Your task to perform on an android device: change your default location settings in chrome Image 0: 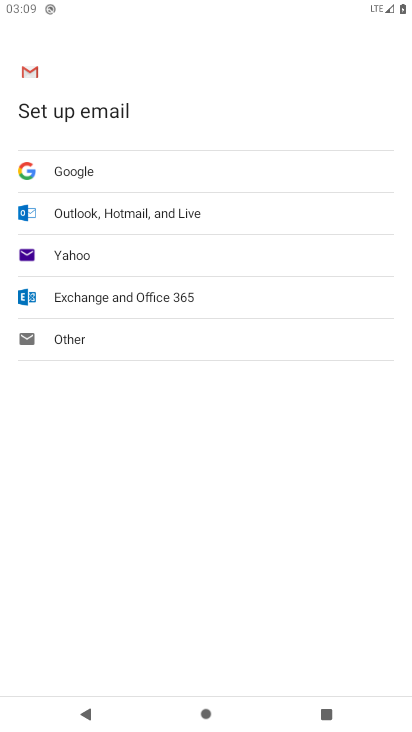
Step 0: press home button
Your task to perform on an android device: change your default location settings in chrome Image 1: 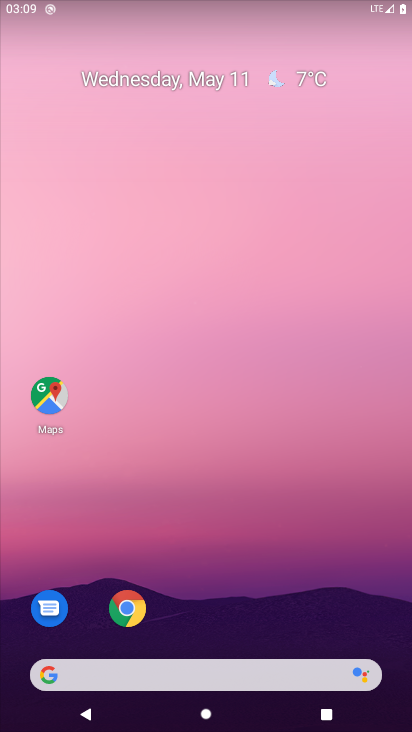
Step 1: click (129, 600)
Your task to perform on an android device: change your default location settings in chrome Image 2: 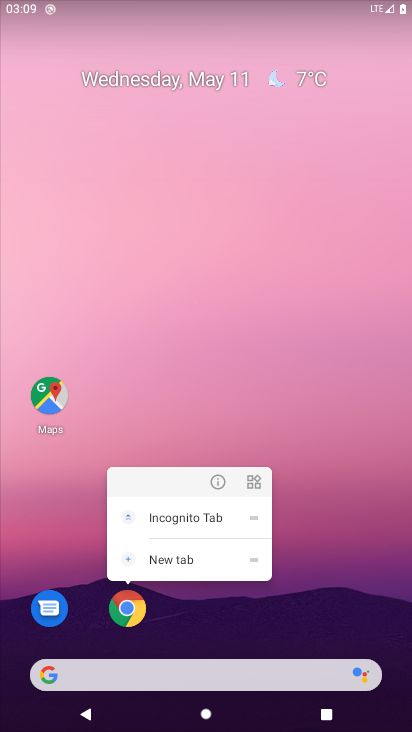
Step 2: click (266, 633)
Your task to perform on an android device: change your default location settings in chrome Image 3: 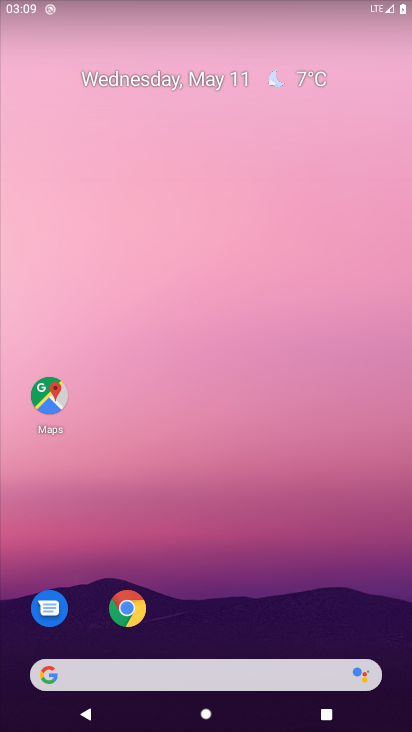
Step 3: drag from (248, 651) to (252, 193)
Your task to perform on an android device: change your default location settings in chrome Image 4: 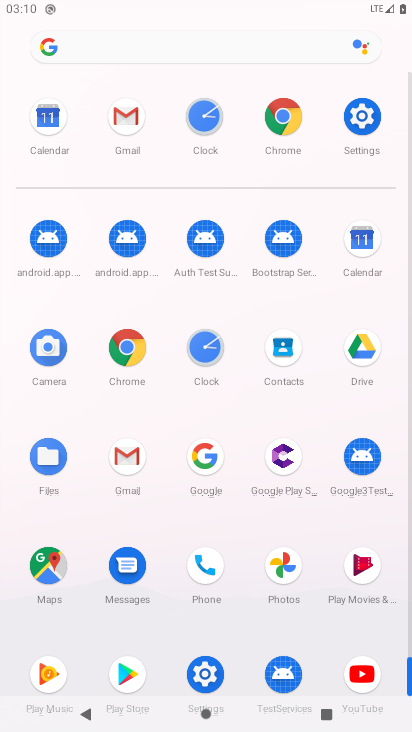
Step 4: click (128, 339)
Your task to perform on an android device: change your default location settings in chrome Image 5: 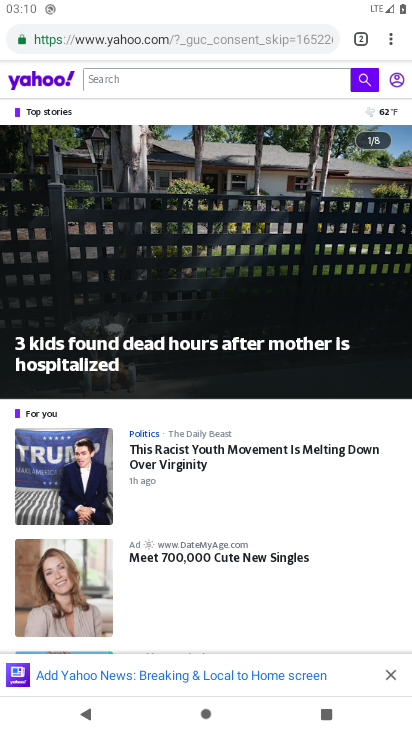
Step 5: click (391, 38)
Your task to perform on an android device: change your default location settings in chrome Image 6: 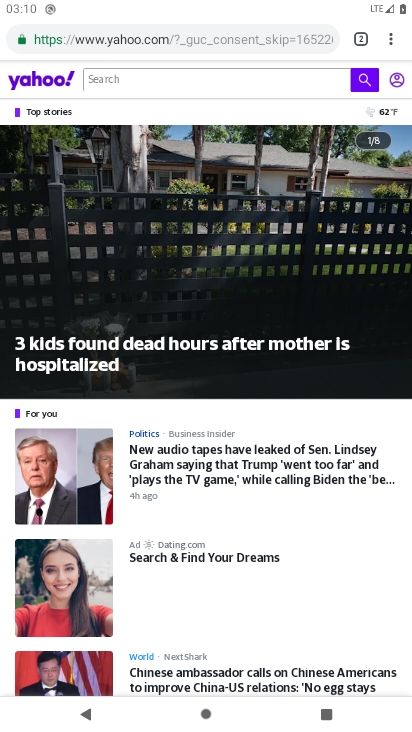
Step 6: click (381, 37)
Your task to perform on an android device: change your default location settings in chrome Image 7: 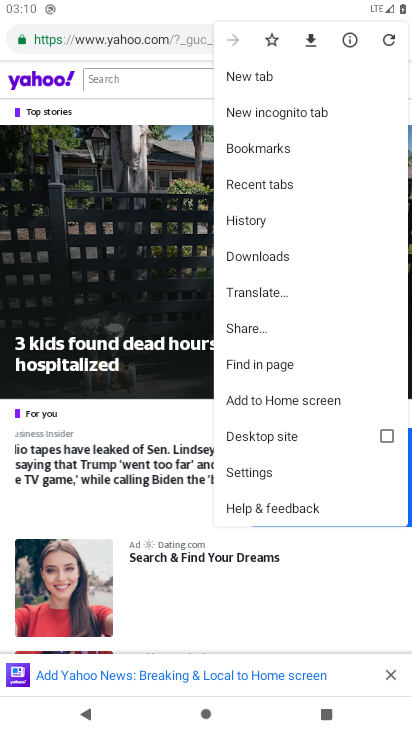
Step 7: click (276, 466)
Your task to perform on an android device: change your default location settings in chrome Image 8: 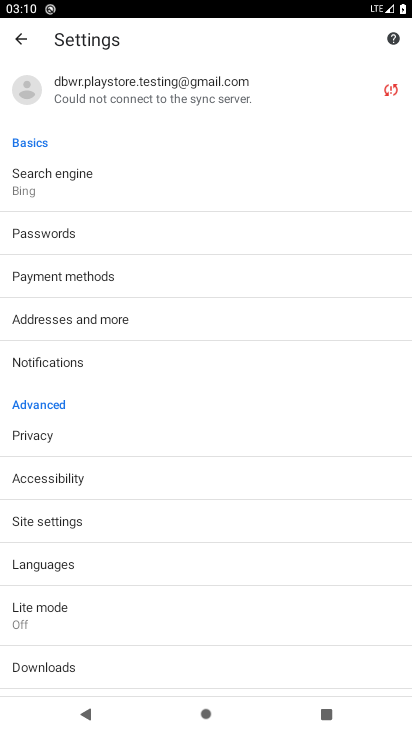
Step 8: click (92, 524)
Your task to perform on an android device: change your default location settings in chrome Image 9: 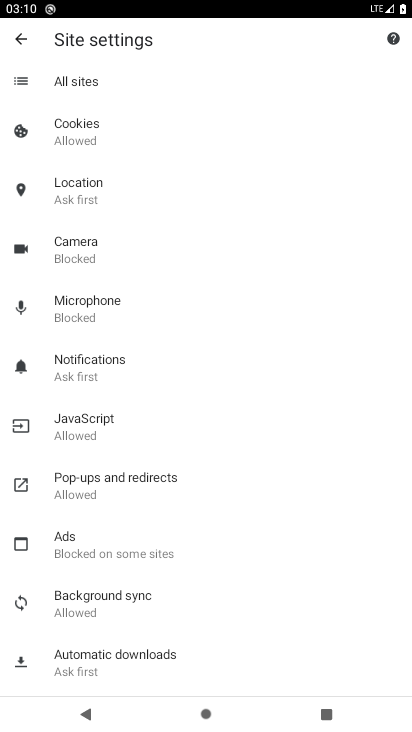
Step 9: click (115, 183)
Your task to perform on an android device: change your default location settings in chrome Image 10: 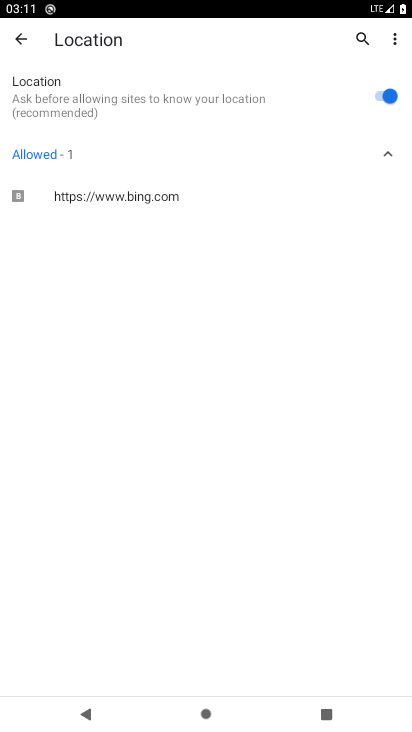
Step 10: click (378, 89)
Your task to perform on an android device: change your default location settings in chrome Image 11: 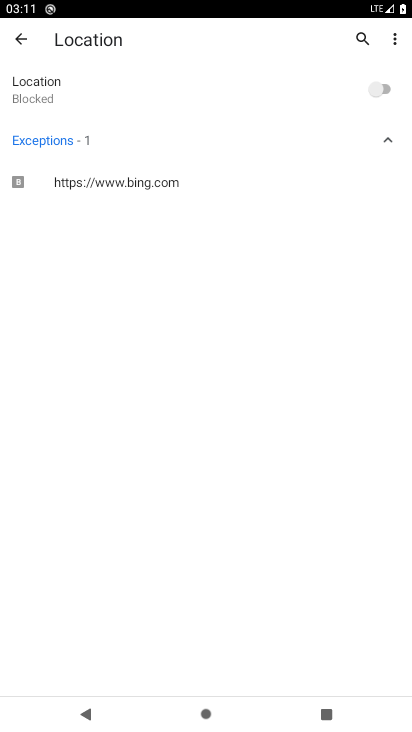
Step 11: task complete